Your task to perform on an android device: see creations saved in the google photos Image 0: 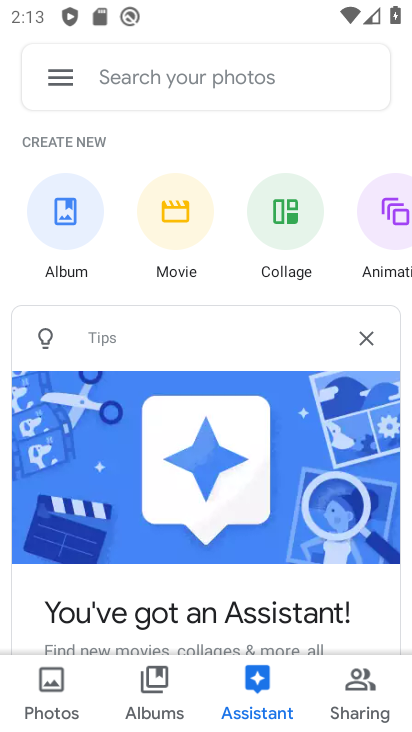
Step 0: press home button
Your task to perform on an android device: see creations saved in the google photos Image 1: 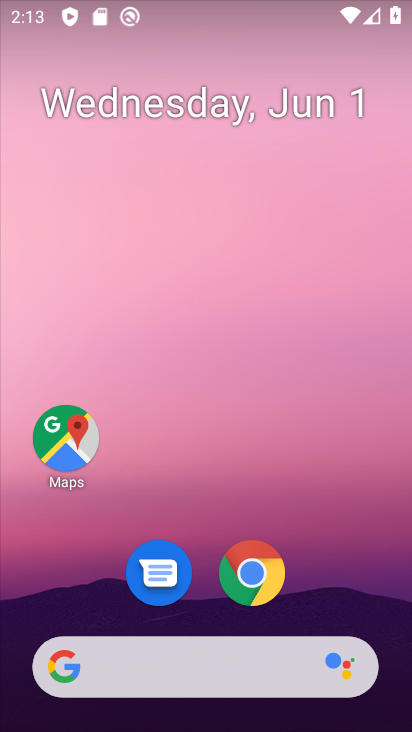
Step 1: drag from (206, 621) to (207, 116)
Your task to perform on an android device: see creations saved in the google photos Image 2: 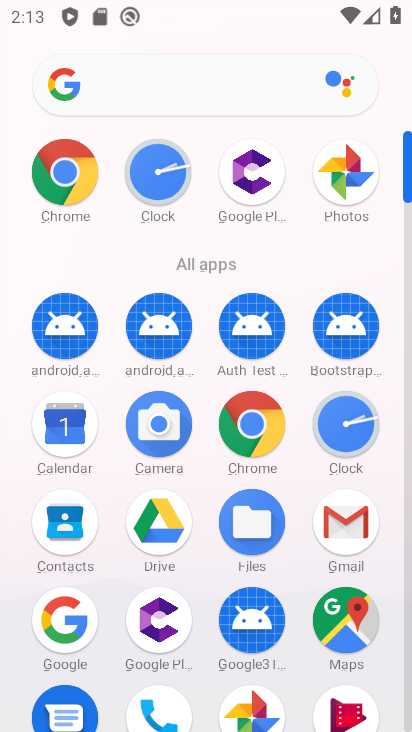
Step 2: drag from (229, 632) to (228, 333)
Your task to perform on an android device: see creations saved in the google photos Image 3: 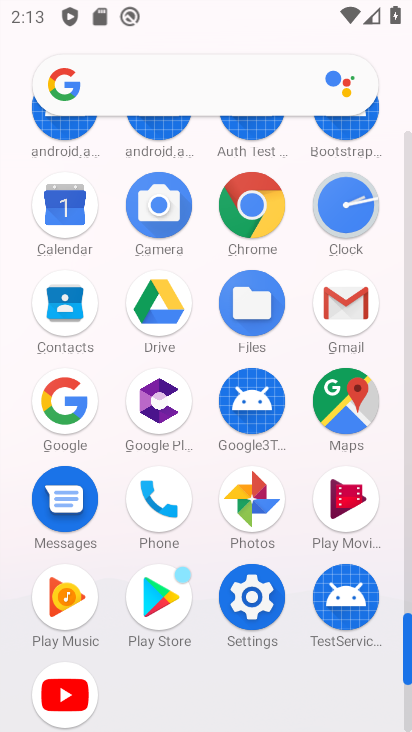
Step 3: click (239, 511)
Your task to perform on an android device: see creations saved in the google photos Image 4: 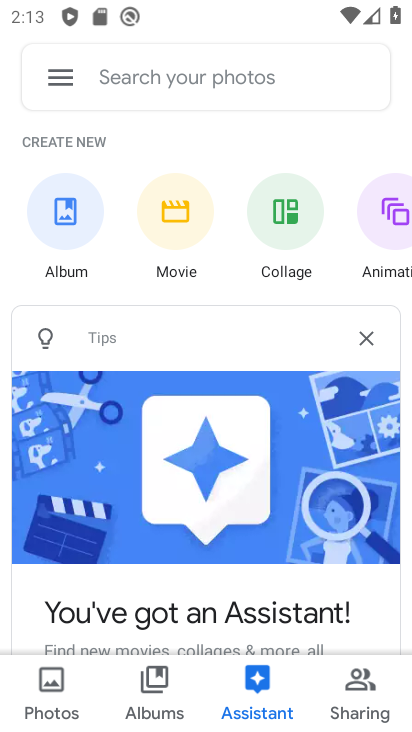
Step 4: click (233, 82)
Your task to perform on an android device: see creations saved in the google photos Image 5: 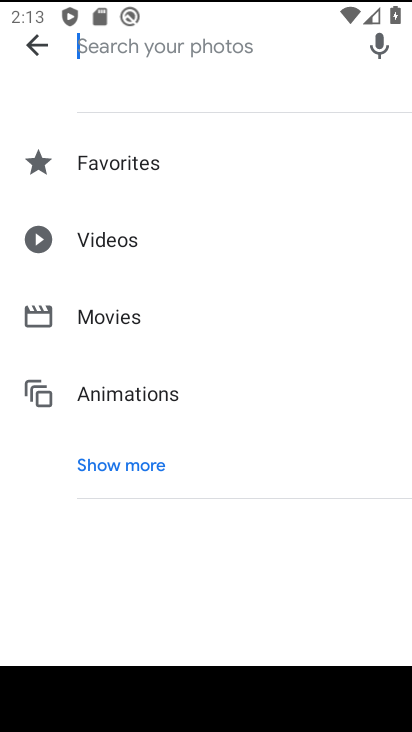
Step 5: click (132, 466)
Your task to perform on an android device: see creations saved in the google photos Image 6: 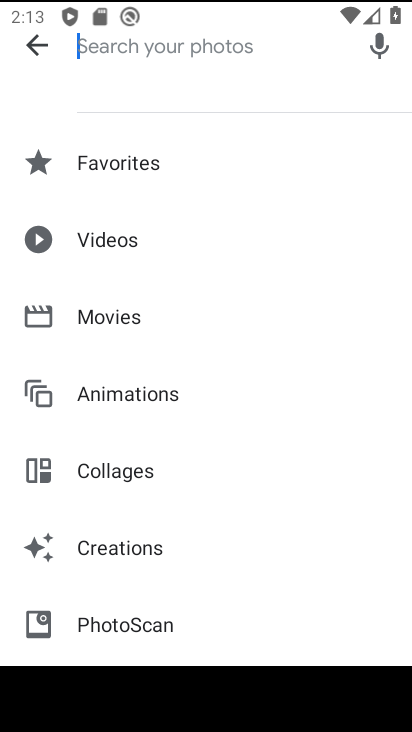
Step 6: click (126, 551)
Your task to perform on an android device: see creations saved in the google photos Image 7: 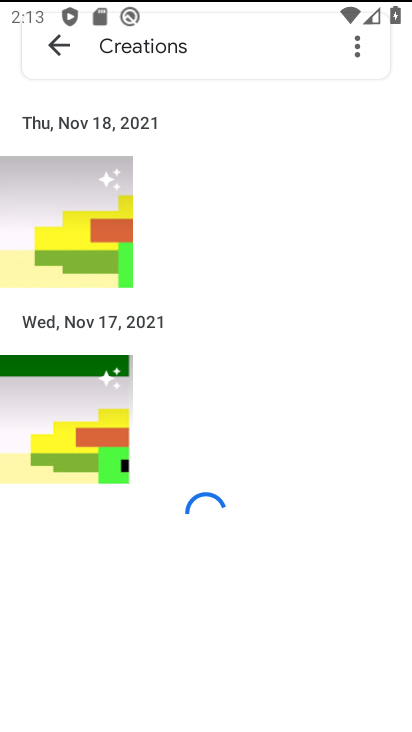
Step 7: task complete